Your task to perform on an android device: Open display settings Image 0: 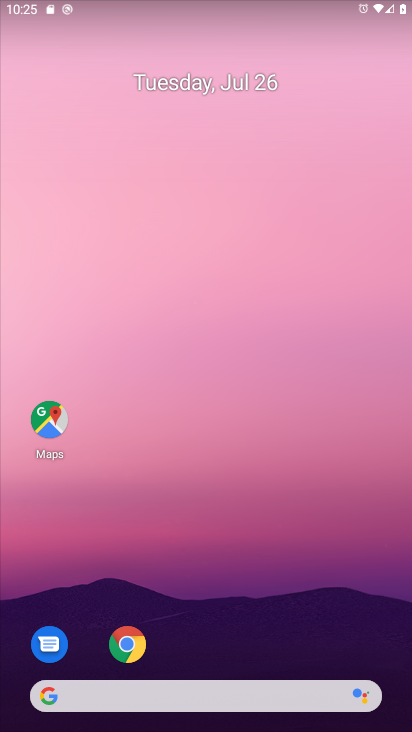
Step 0: drag from (233, 633) to (290, 1)
Your task to perform on an android device: Open display settings Image 1: 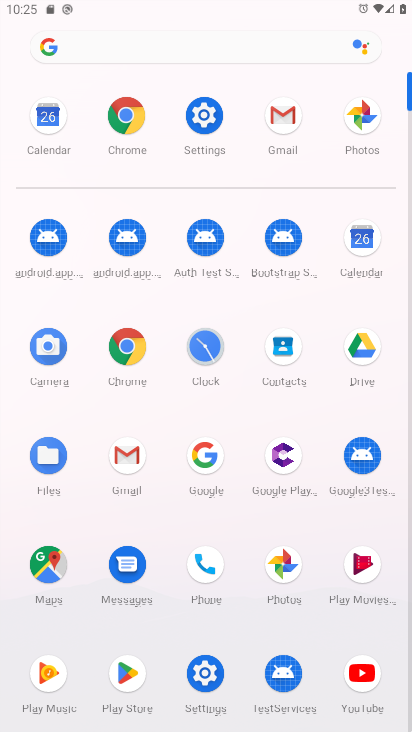
Step 1: click (207, 666)
Your task to perform on an android device: Open display settings Image 2: 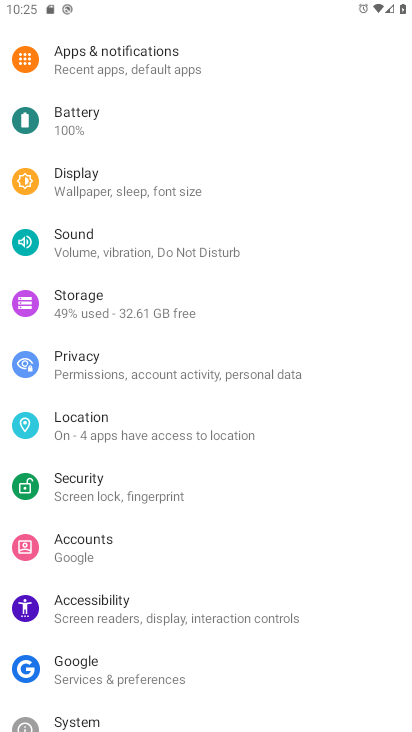
Step 2: click (84, 181)
Your task to perform on an android device: Open display settings Image 3: 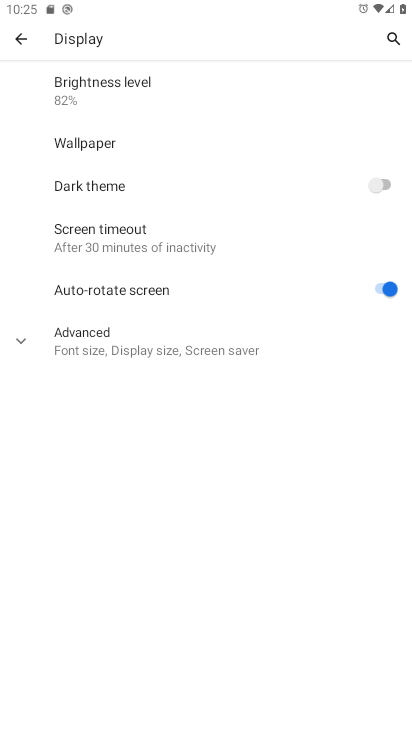
Step 3: task complete